Your task to perform on an android device: change keyboard looks Image 0: 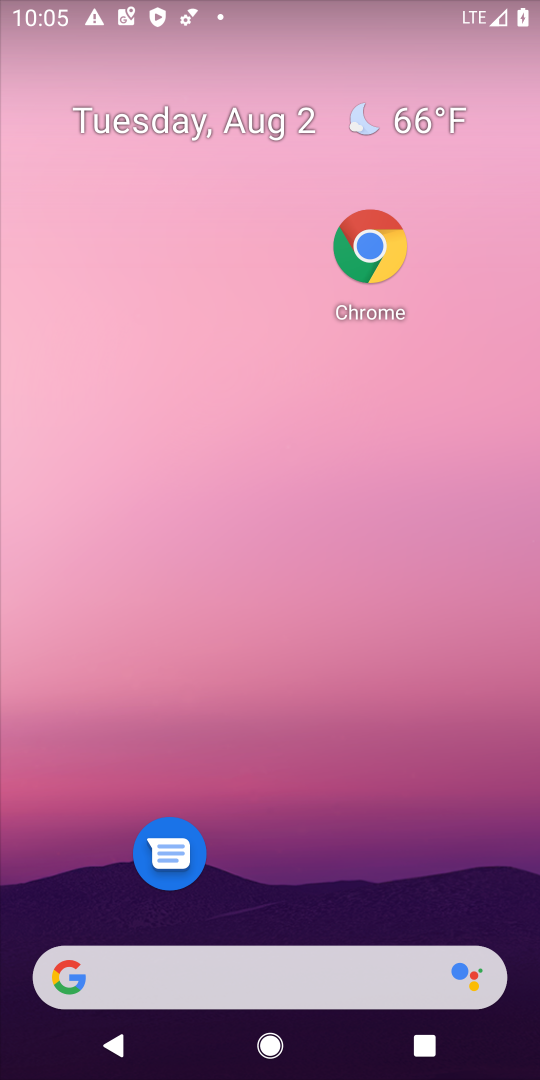
Step 0: drag from (326, 945) to (23, 280)
Your task to perform on an android device: change keyboard looks Image 1: 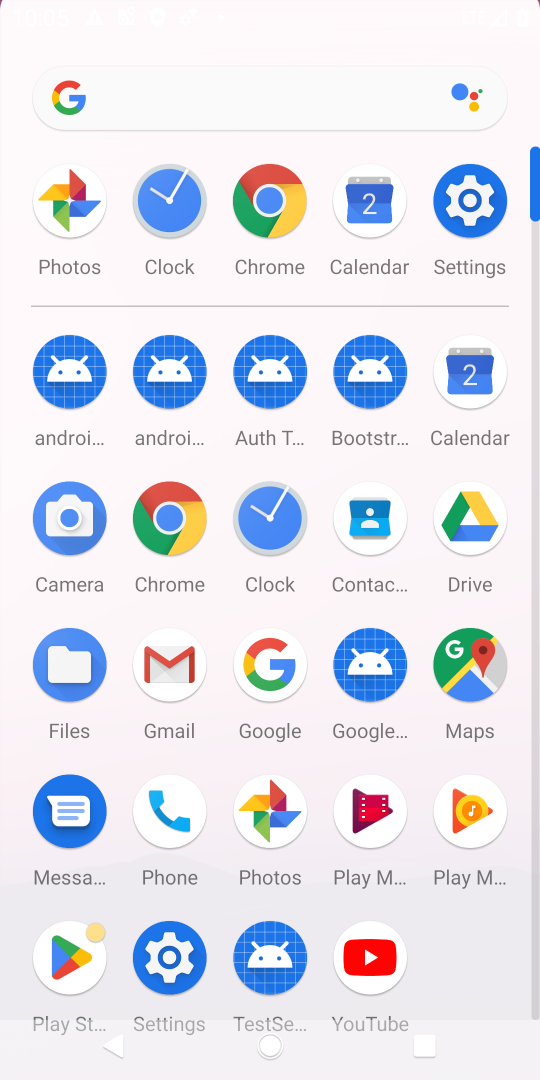
Step 1: click (452, 213)
Your task to perform on an android device: change keyboard looks Image 2: 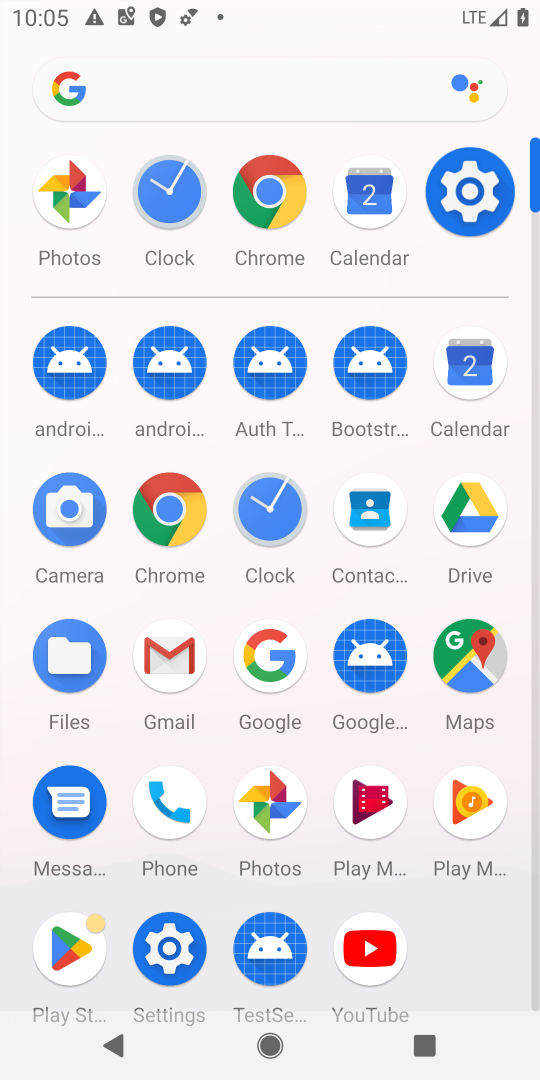
Step 2: click (452, 213)
Your task to perform on an android device: change keyboard looks Image 3: 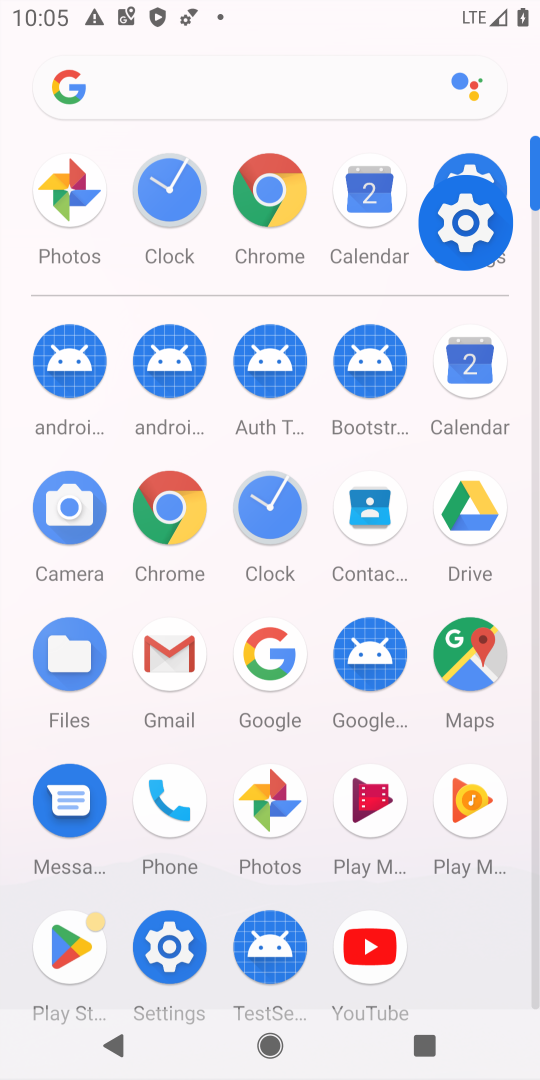
Step 3: click (452, 213)
Your task to perform on an android device: change keyboard looks Image 4: 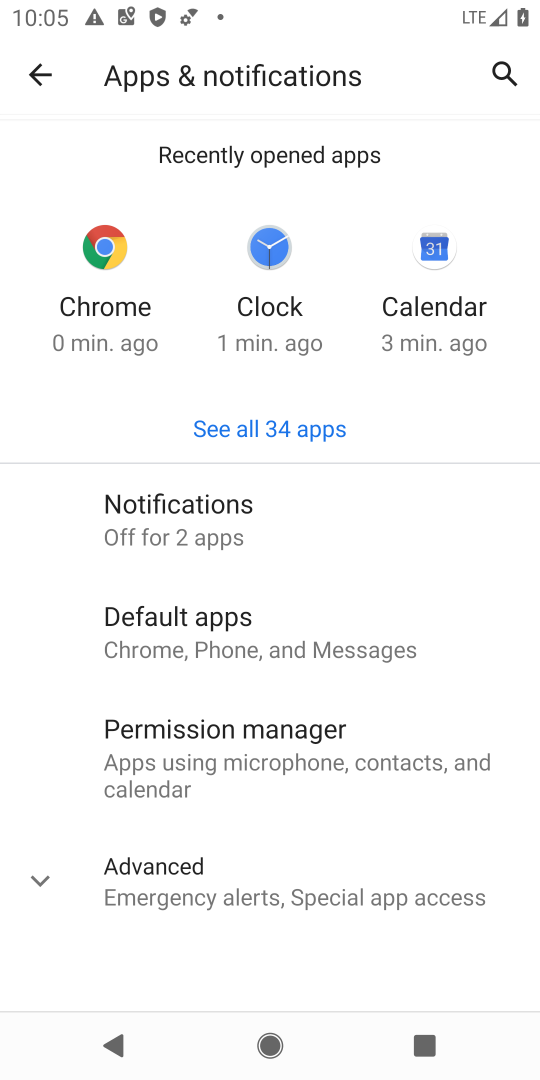
Step 4: click (39, 56)
Your task to perform on an android device: change keyboard looks Image 5: 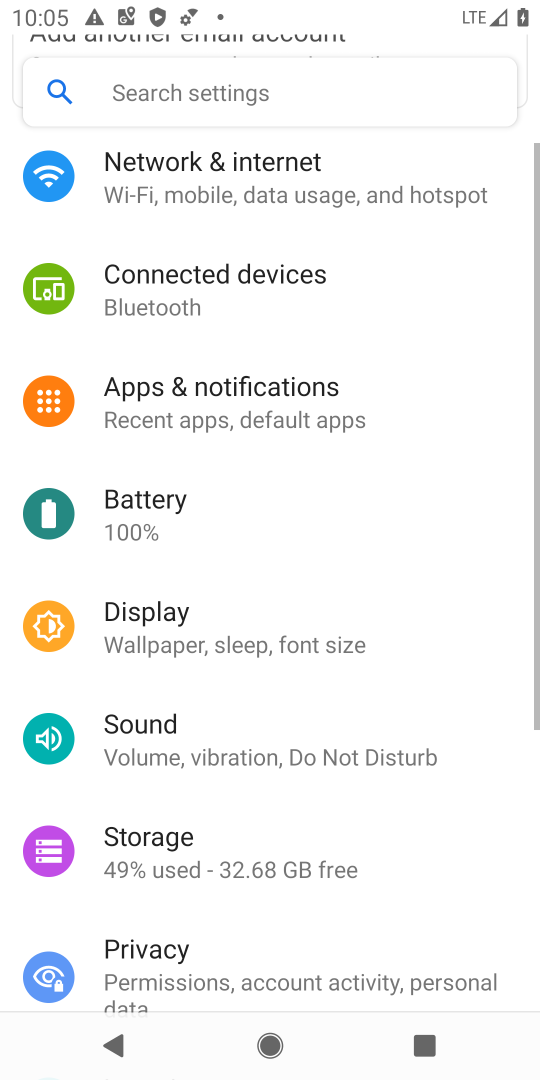
Step 5: drag from (249, 812) to (235, 63)
Your task to perform on an android device: change keyboard looks Image 6: 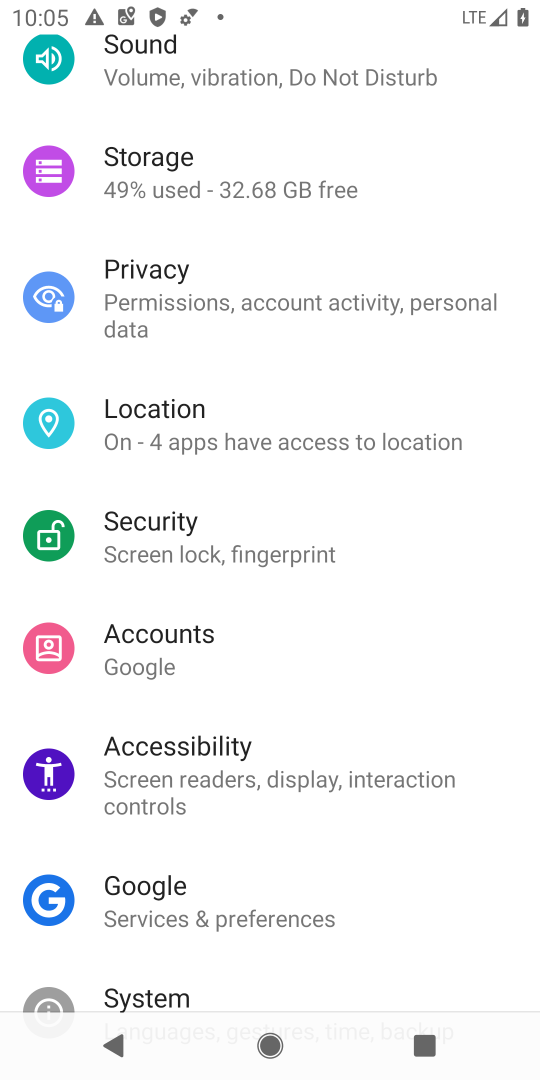
Step 6: drag from (136, 911) to (134, 416)
Your task to perform on an android device: change keyboard looks Image 7: 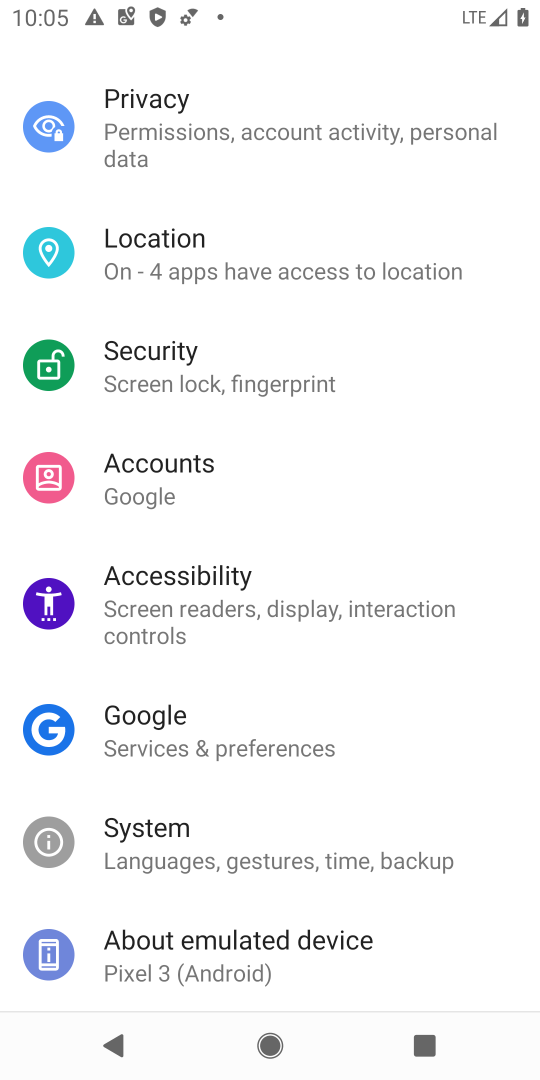
Step 7: click (186, 843)
Your task to perform on an android device: change keyboard looks Image 8: 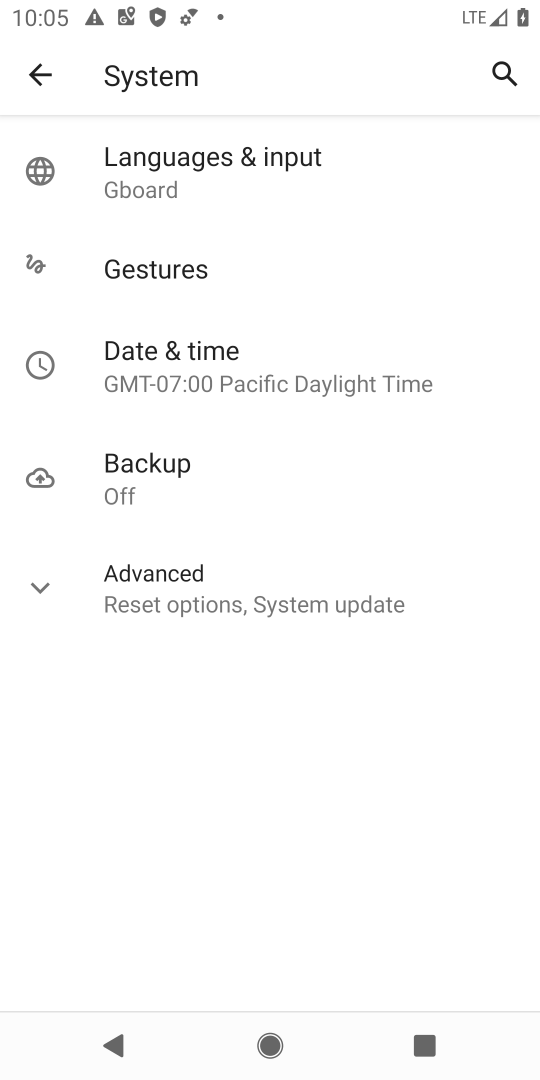
Step 8: click (179, 178)
Your task to perform on an android device: change keyboard looks Image 9: 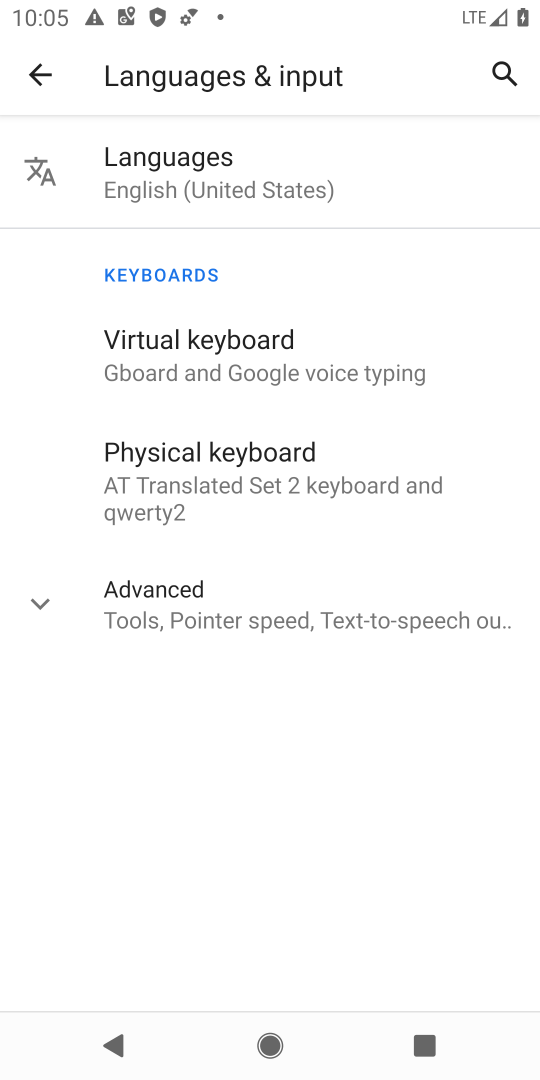
Step 9: click (155, 599)
Your task to perform on an android device: change keyboard looks Image 10: 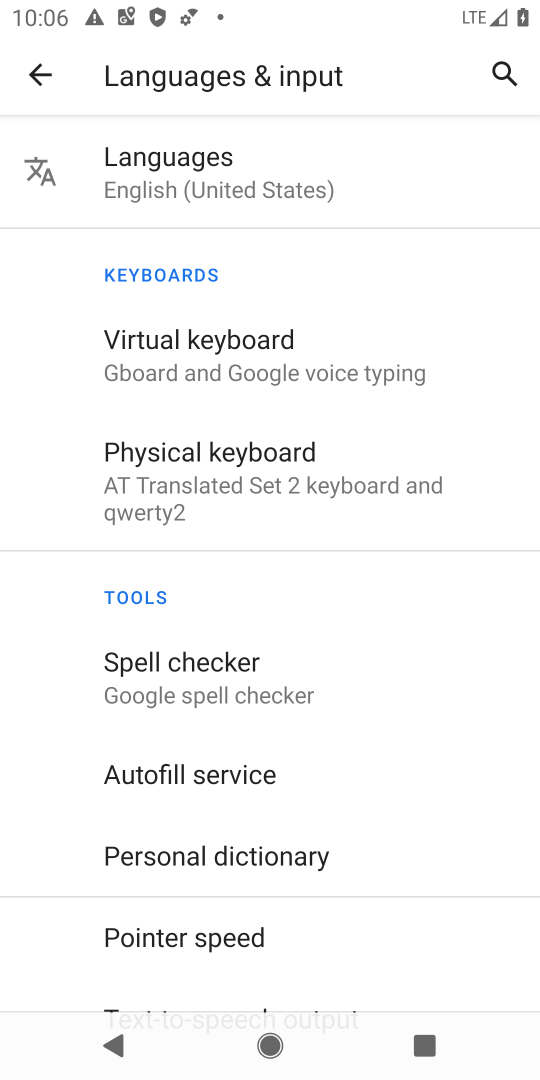
Step 10: click (248, 359)
Your task to perform on an android device: change keyboard looks Image 11: 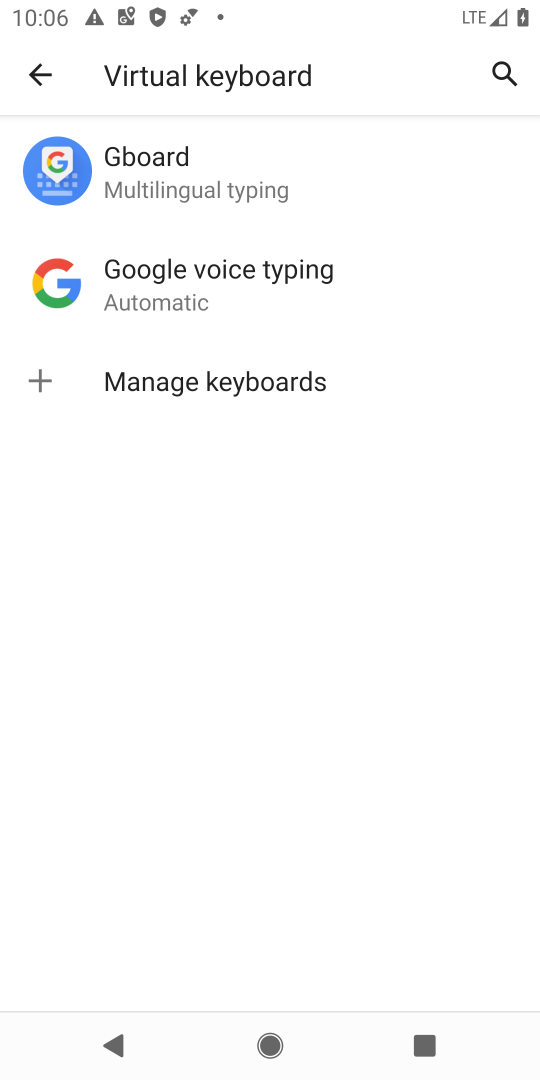
Step 11: click (104, 162)
Your task to perform on an android device: change keyboard looks Image 12: 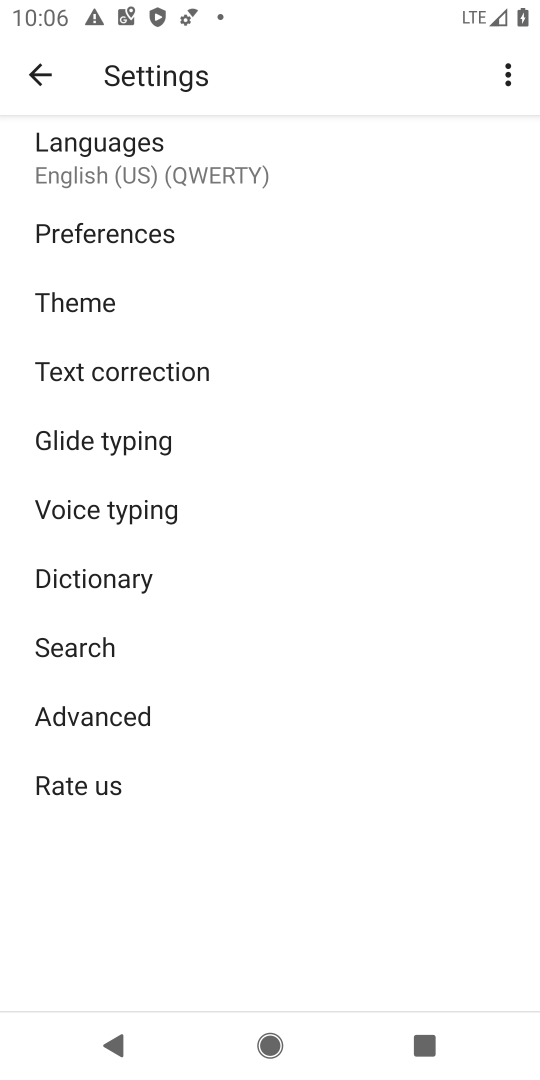
Step 12: click (47, 305)
Your task to perform on an android device: change keyboard looks Image 13: 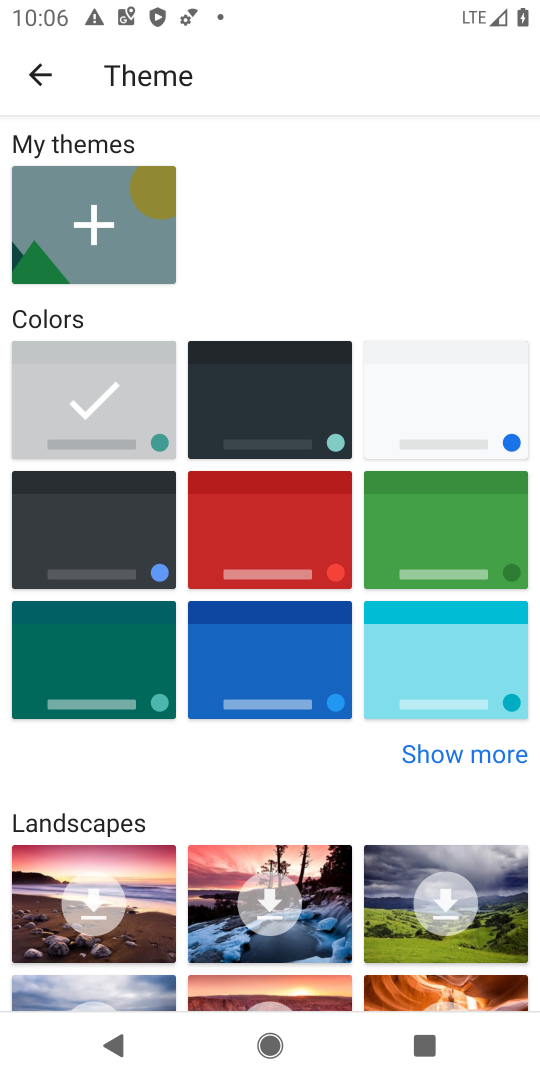
Step 13: click (239, 372)
Your task to perform on an android device: change keyboard looks Image 14: 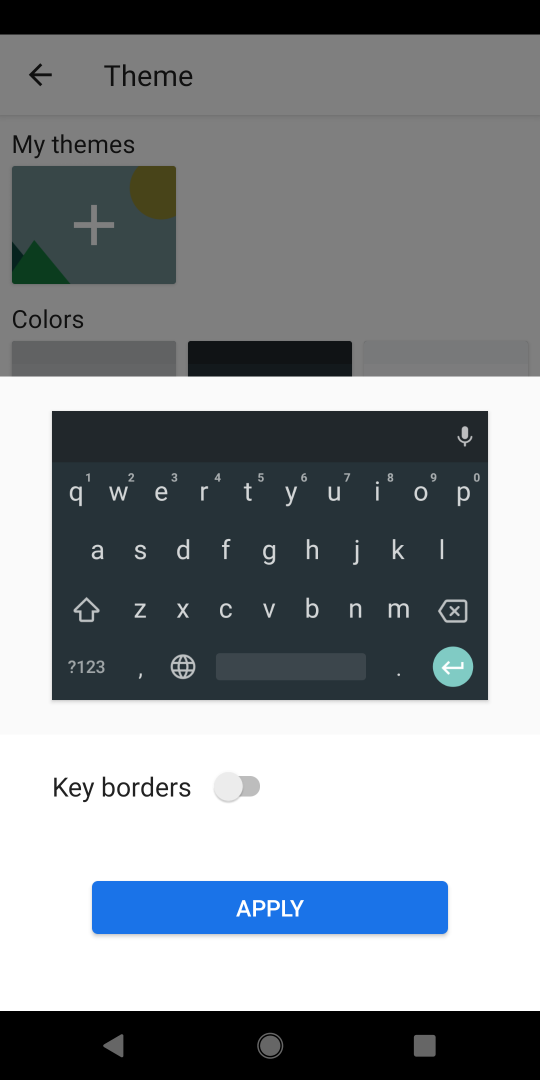
Step 14: click (282, 899)
Your task to perform on an android device: change keyboard looks Image 15: 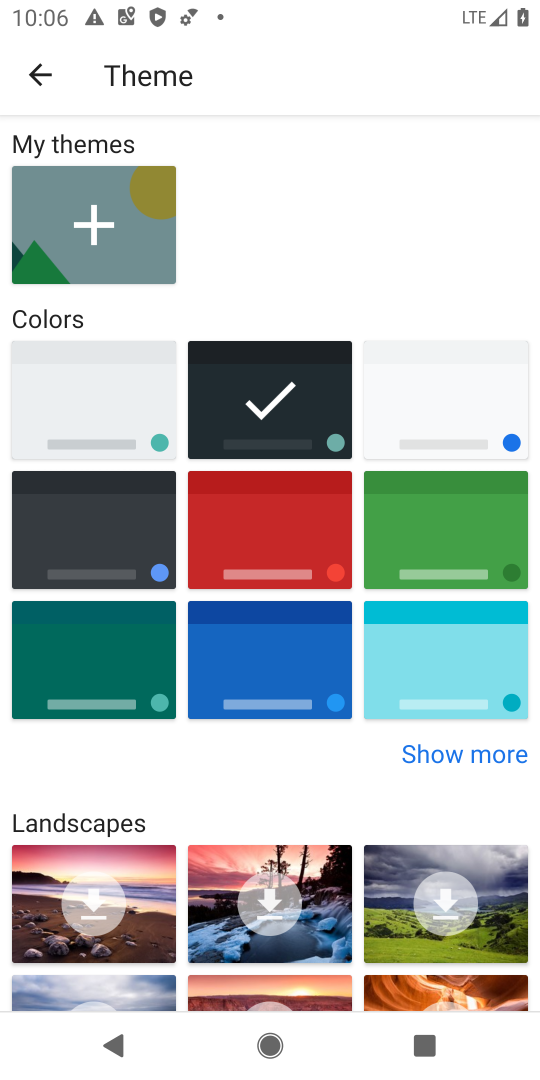
Step 15: task complete